Your task to perform on an android device: toggle notifications settings in the gmail app Image 0: 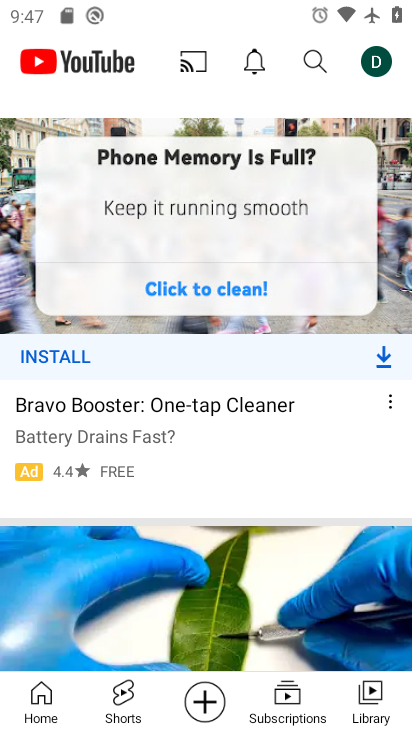
Step 0: press home button
Your task to perform on an android device: toggle notifications settings in the gmail app Image 1: 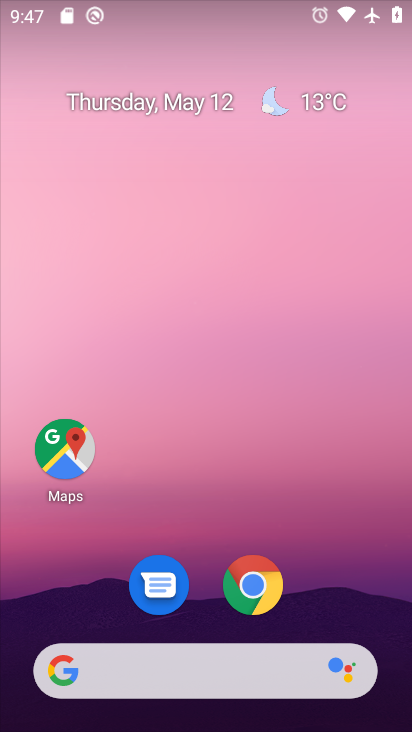
Step 1: drag from (234, 508) to (187, 28)
Your task to perform on an android device: toggle notifications settings in the gmail app Image 2: 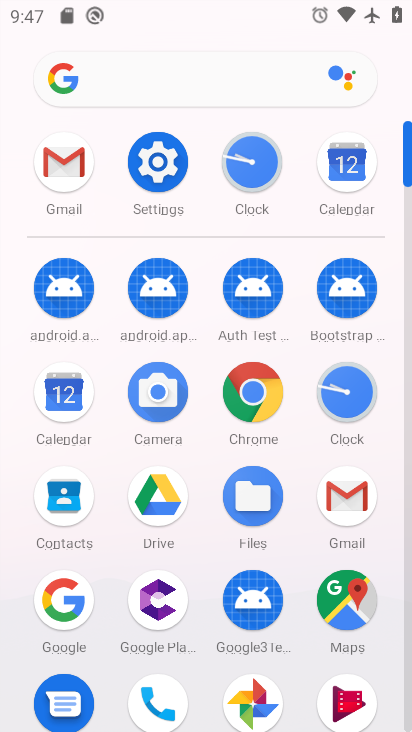
Step 2: click (73, 160)
Your task to perform on an android device: toggle notifications settings in the gmail app Image 3: 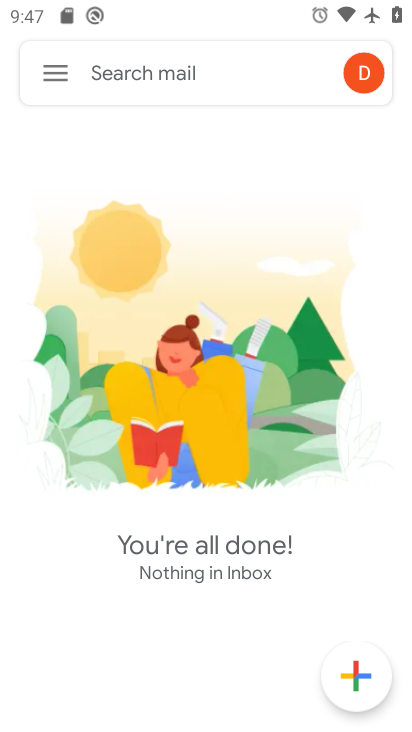
Step 3: click (60, 61)
Your task to perform on an android device: toggle notifications settings in the gmail app Image 4: 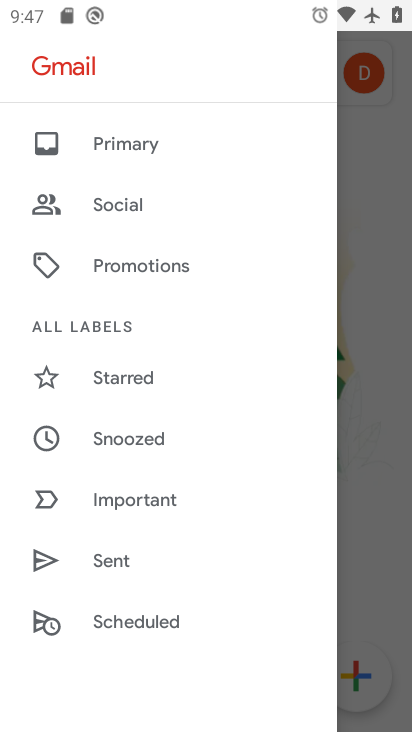
Step 4: drag from (167, 573) to (203, 90)
Your task to perform on an android device: toggle notifications settings in the gmail app Image 5: 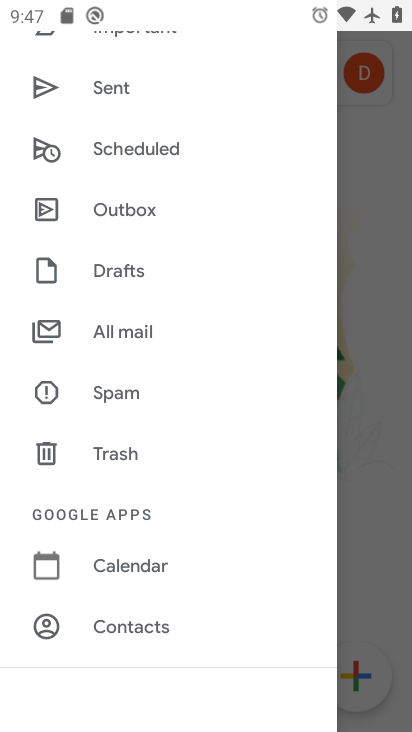
Step 5: drag from (190, 496) to (182, 209)
Your task to perform on an android device: toggle notifications settings in the gmail app Image 6: 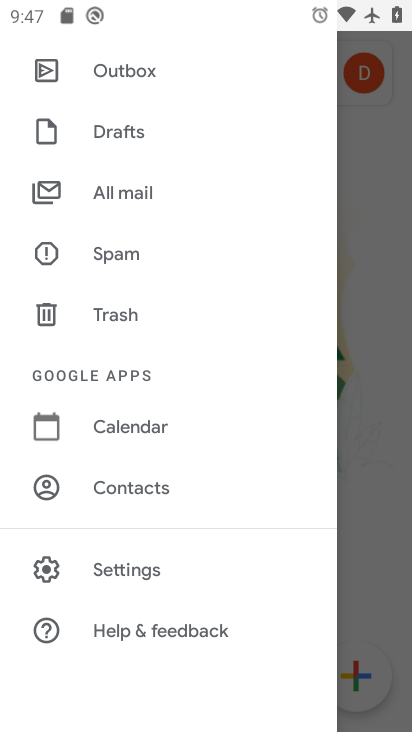
Step 6: click (135, 567)
Your task to perform on an android device: toggle notifications settings in the gmail app Image 7: 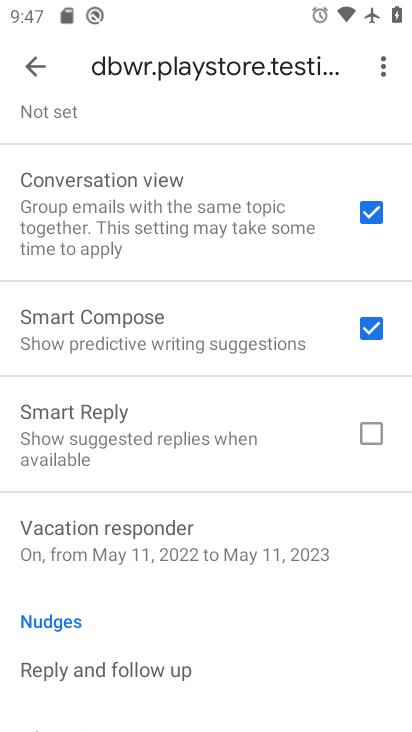
Step 7: drag from (205, 255) to (230, 681)
Your task to perform on an android device: toggle notifications settings in the gmail app Image 8: 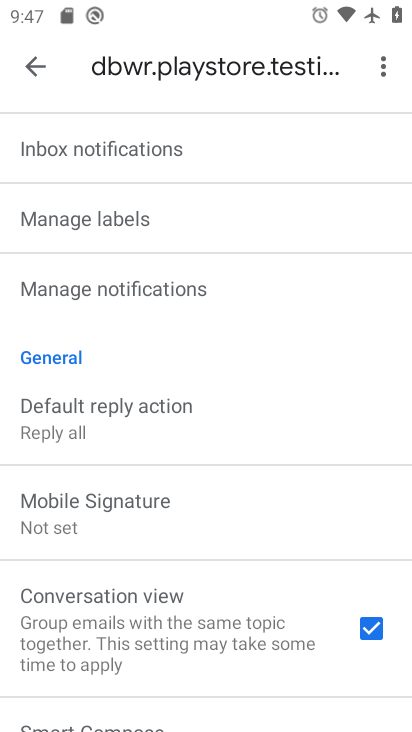
Step 8: click (170, 282)
Your task to perform on an android device: toggle notifications settings in the gmail app Image 9: 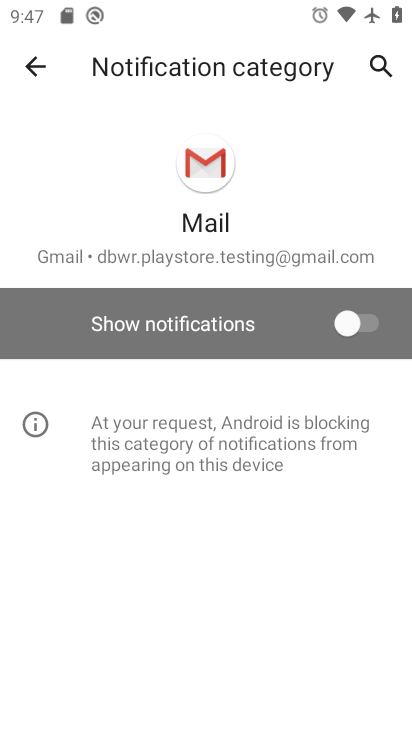
Step 9: click (363, 315)
Your task to perform on an android device: toggle notifications settings in the gmail app Image 10: 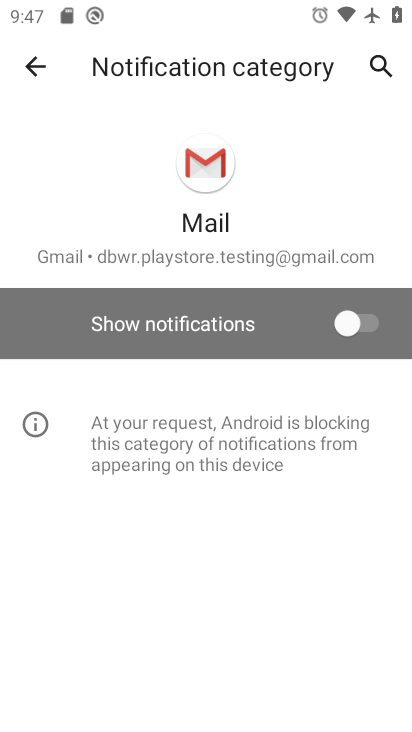
Step 10: click (347, 313)
Your task to perform on an android device: toggle notifications settings in the gmail app Image 11: 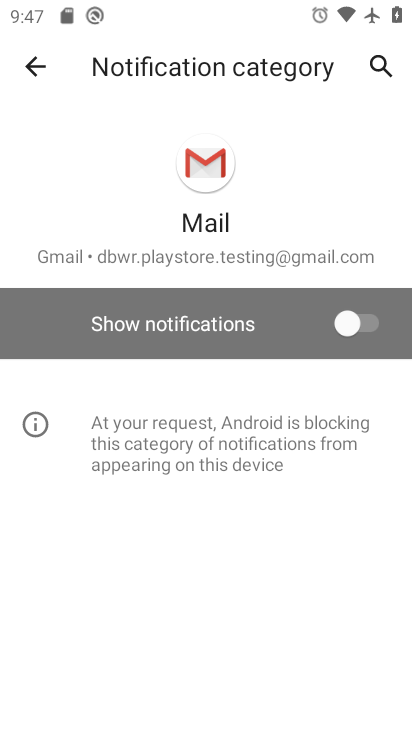
Step 11: click (35, 67)
Your task to perform on an android device: toggle notifications settings in the gmail app Image 12: 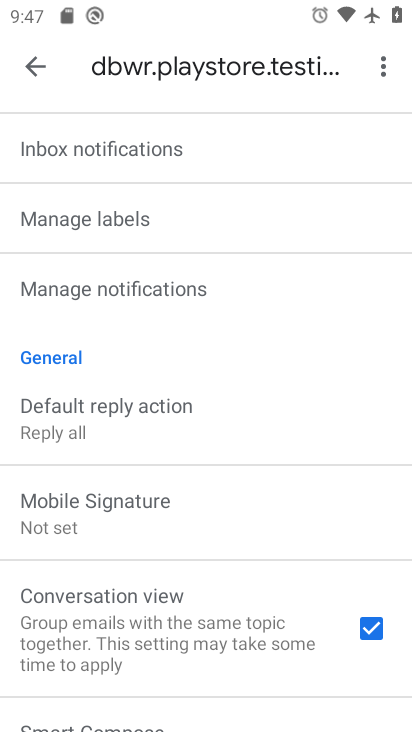
Step 12: click (35, 61)
Your task to perform on an android device: toggle notifications settings in the gmail app Image 13: 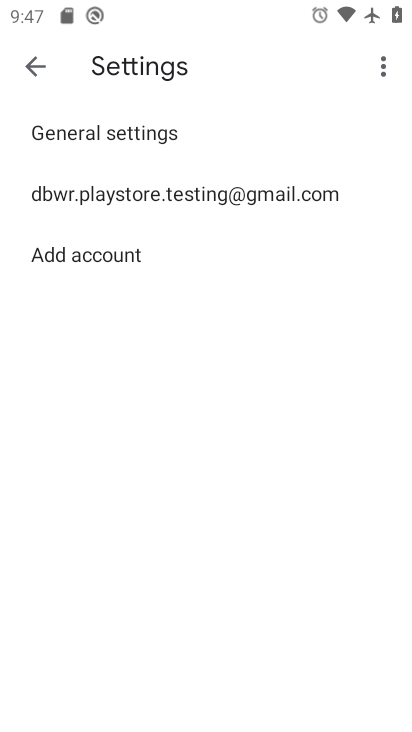
Step 13: click (121, 124)
Your task to perform on an android device: toggle notifications settings in the gmail app Image 14: 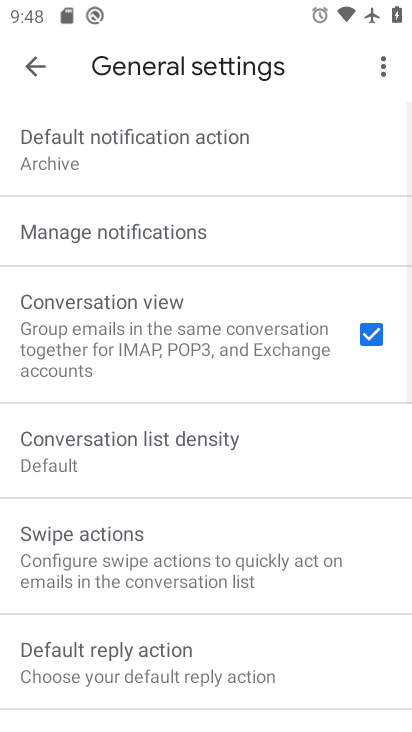
Step 14: click (163, 233)
Your task to perform on an android device: toggle notifications settings in the gmail app Image 15: 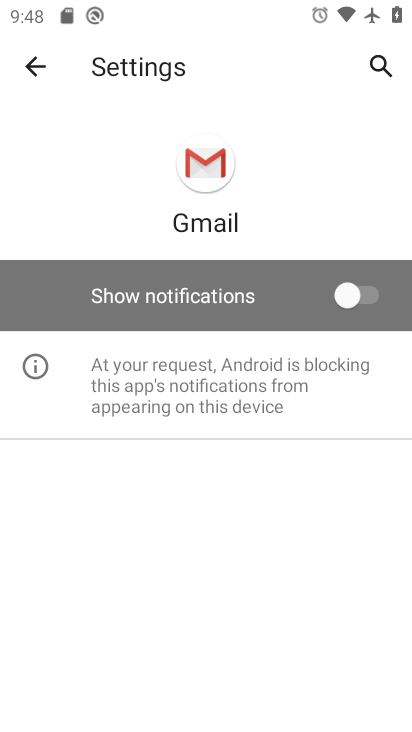
Step 15: click (355, 285)
Your task to perform on an android device: toggle notifications settings in the gmail app Image 16: 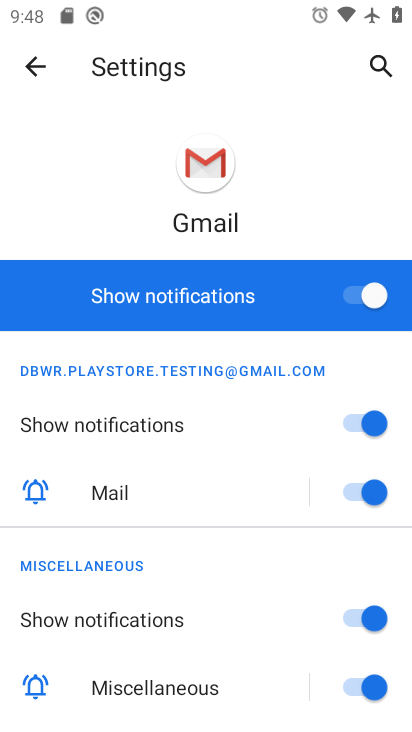
Step 16: task complete